Your task to perform on an android device: set an alarm Image 0: 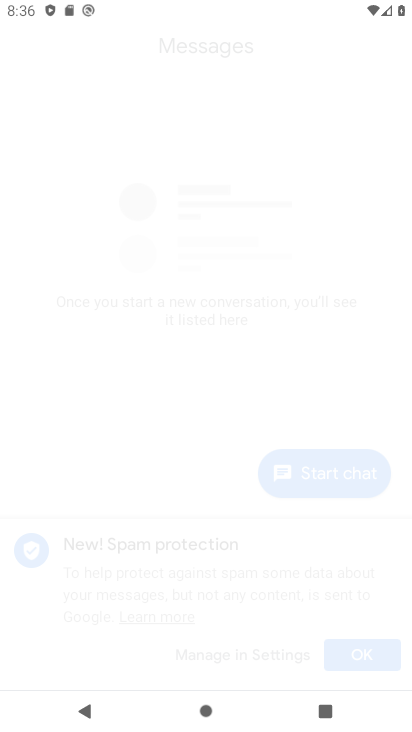
Step 0: click (250, 675)
Your task to perform on an android device: set an alarm Image 1: 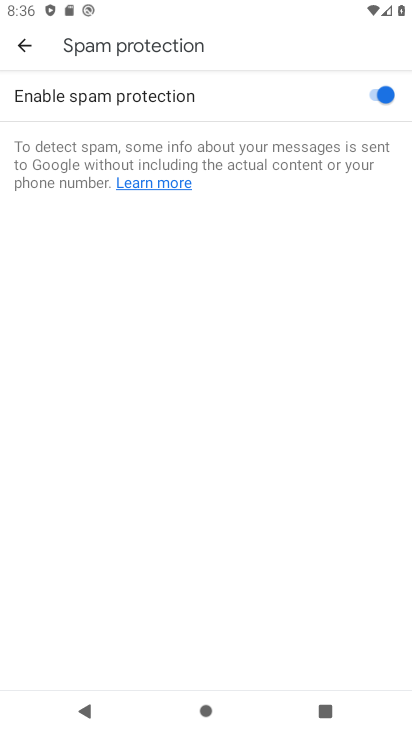
Step 1: press home button
Your task to perform on an android device: set an alarm Image 2: 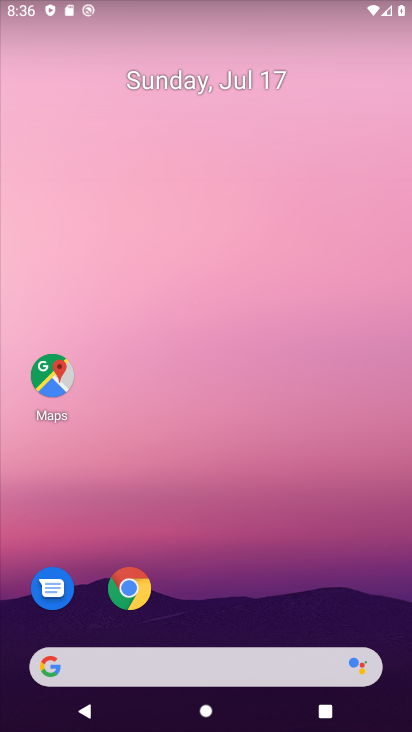
Step 2: drag from (226, 584) to (157, 12)
Your task to perform on an android device: set an alarm Image 3: 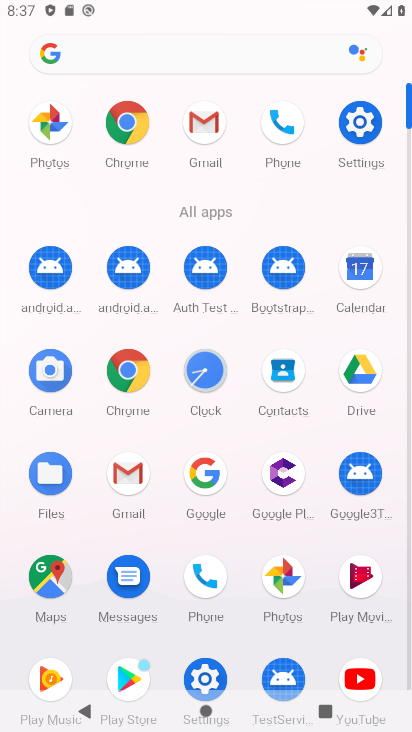
Step 3: click (206, 375)
Your task to perform on an android device: set an alarm Image 4: 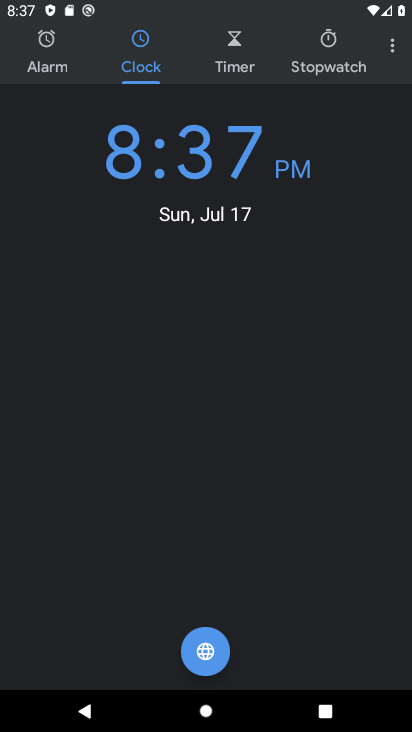
Step 4: click (47, 56)
Your task to perform on an android device: set an alarm Image 5: 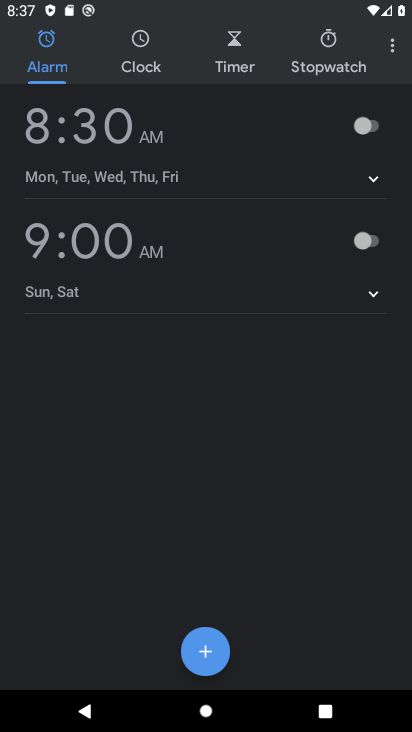
Step 5: click (216, 653)
Your task to perform on an android device: set an alarm Image 6: 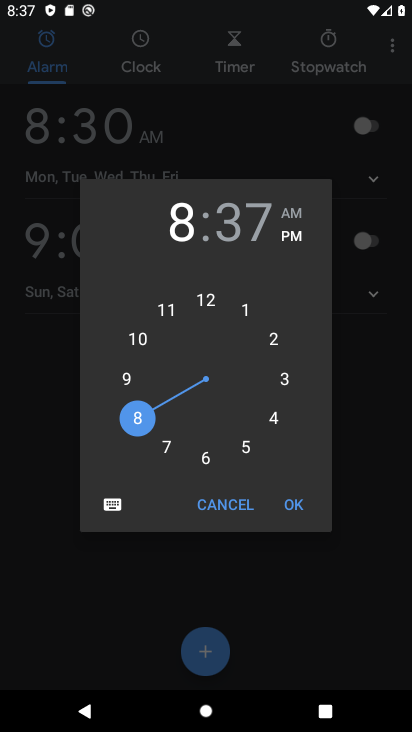
Step 6: click (293, 504)
Your task to perform on an android device: set an alarm Image 7: 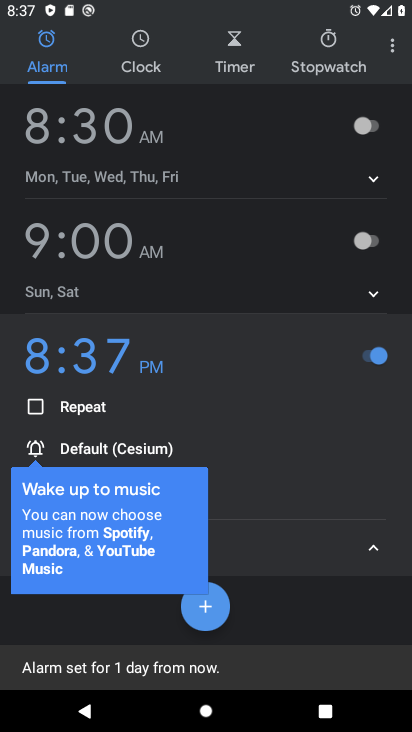
Step 7: task complete